Your task to perform on an android device: turn off data saver in the chrome app Image 0: 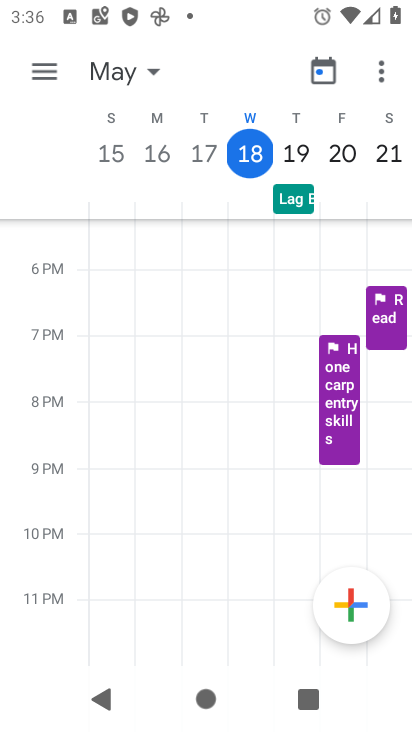
Step 0: task complete